Your task to perform on an android device: set the stopwatch Image 0: 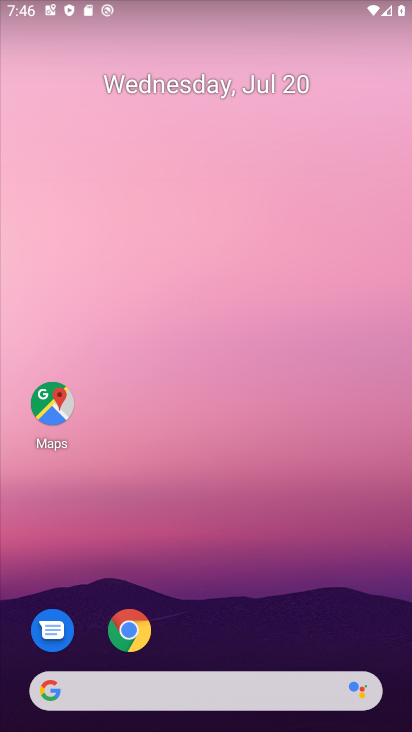
Step 0: drag from (198, 606) to (195, 143)
Your task to perform on an android device: set the stopwatch Image 1: 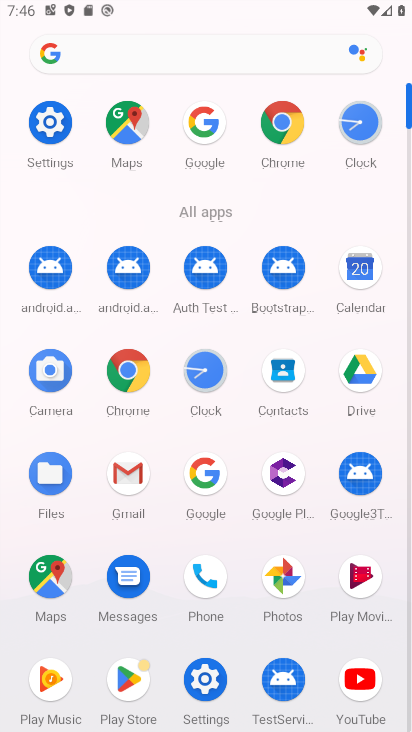
Step 1: click (198, 372)
Your task to perform on an android device: set the stopwatch Image 2: 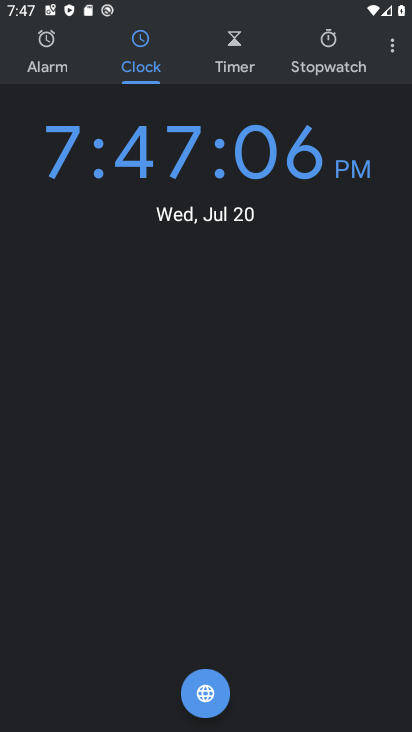
Step 2: click (325, 63)
Your task to perform on an android device: set the stopwatch Image 3: 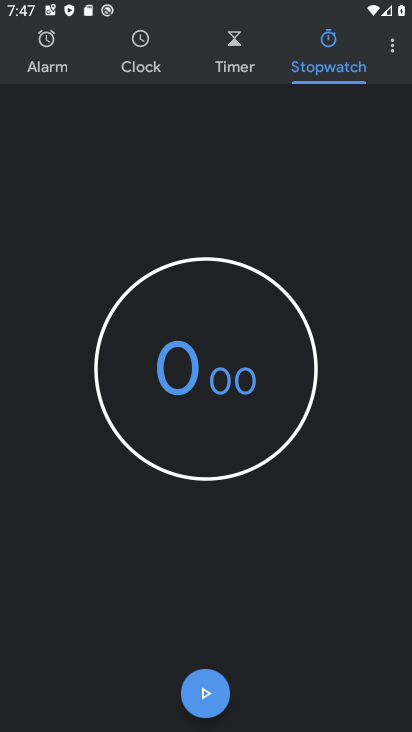
Step 3: click (222, 697)
Your task to perform on an android device: set the stopwatch Image 4: 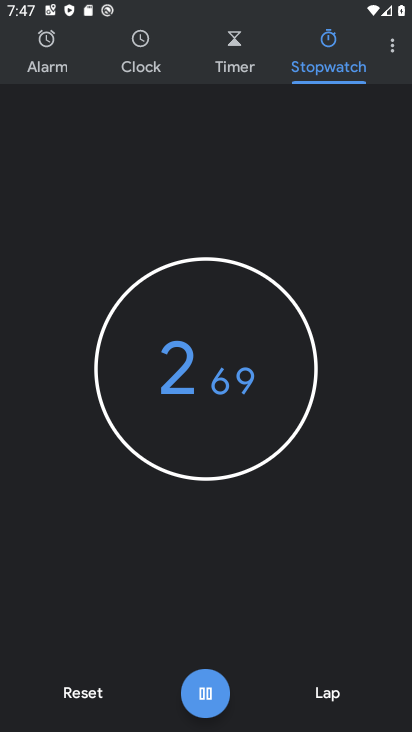
Step 4: task complete